Your task to perform on an android device: Open sound settings Image 0: 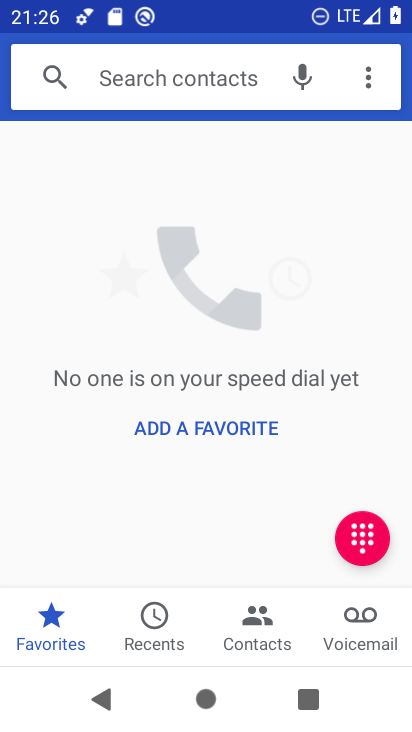
Step 0: press home button
Your task to perform on an android device: Open sound settings Image 1: 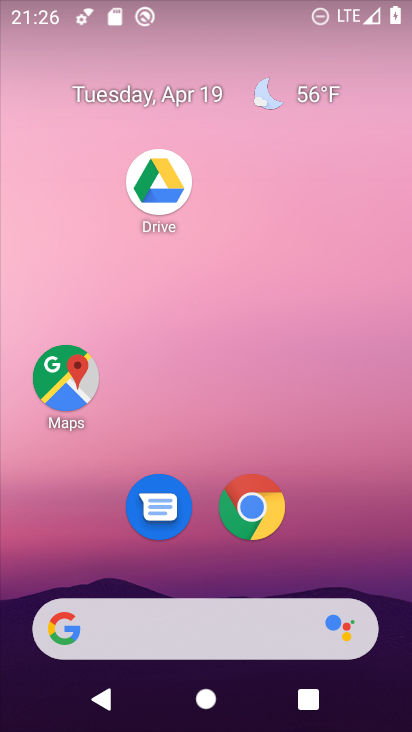
Step 1: drag from (237, 400) to (294, 96)
Your task to perform on an android device: Open sound settings Image 2: 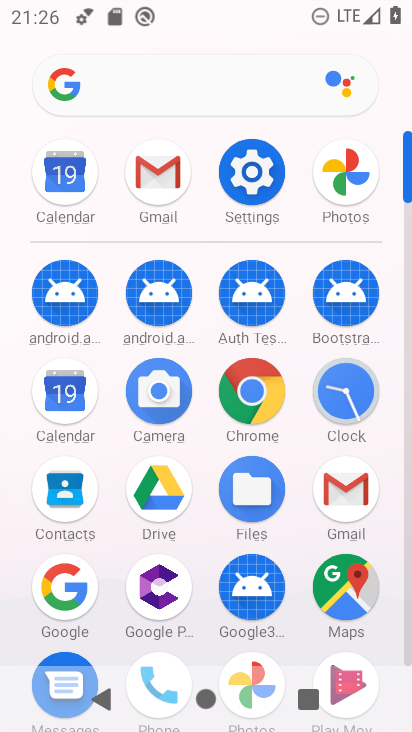
Step 2: click (250, 163)
Your task to perform on an android device: Open sound settings Image 3: 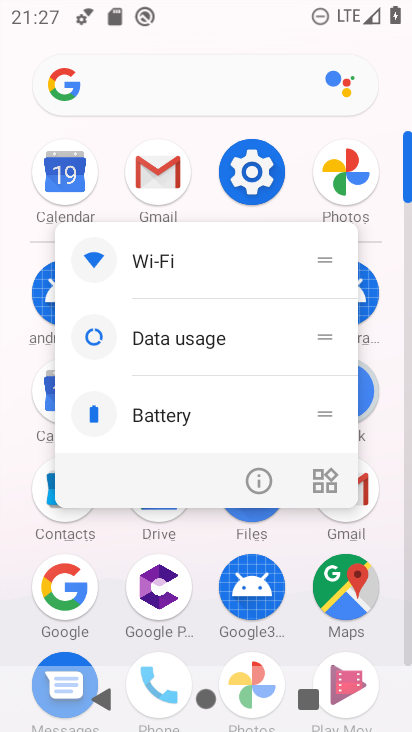
Step 3: click (252, 166)
Your task to perform on an android device: Open sound settings Image 4: 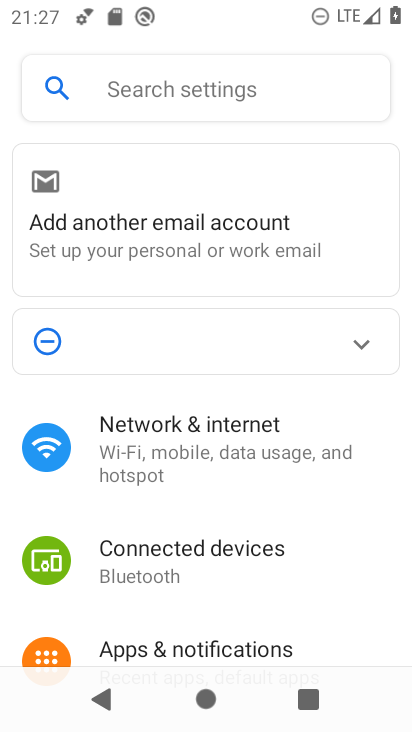
Step 4: drag from (226, 616) to (300, 272)
Your task to perform on an android device: Open sound settings Image 5: 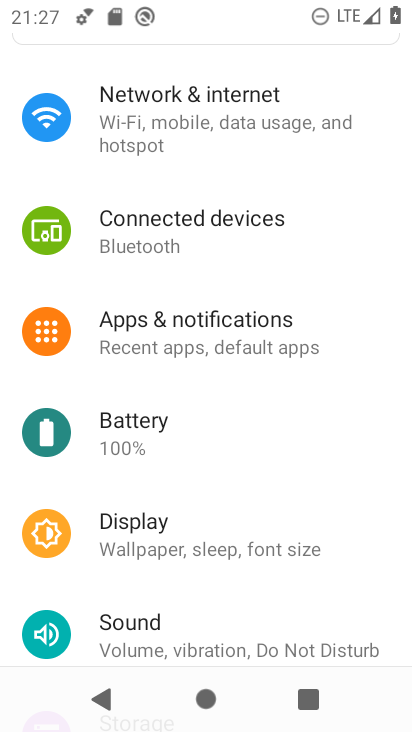
Step 5: click (213, 624)
Your task to perform on an android device: Open sound settings Image 6: 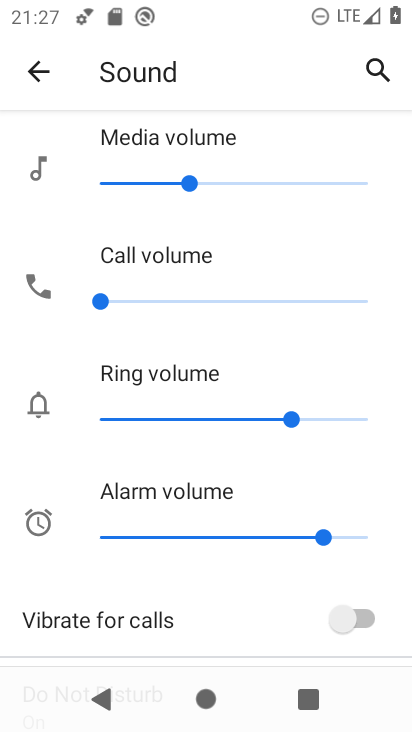
Step 6: task complete